Your task to perform on an android device: Go to network settings Image 0: 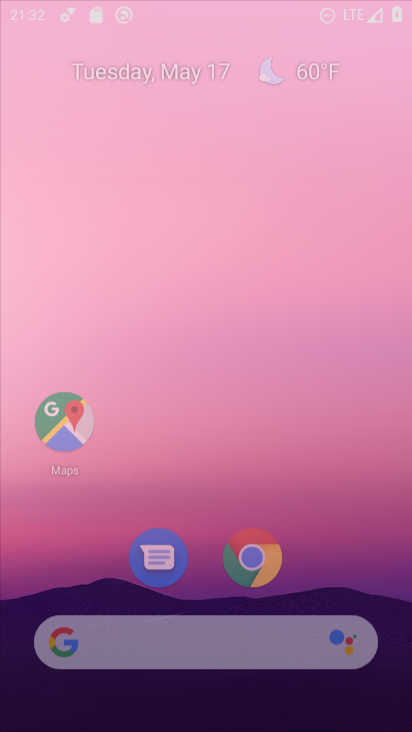
Step 0: click (178, 234)
Your task to perform on an android device: Go to network settings Image 1: 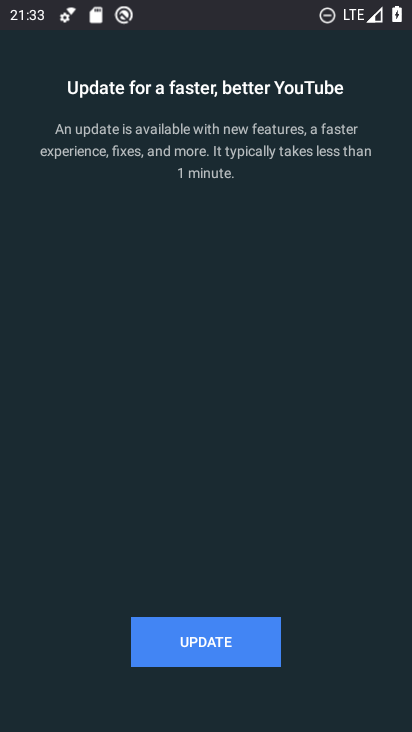
Step 1: press home button
Your task to perform on an android device: Go to network settings Image 2: 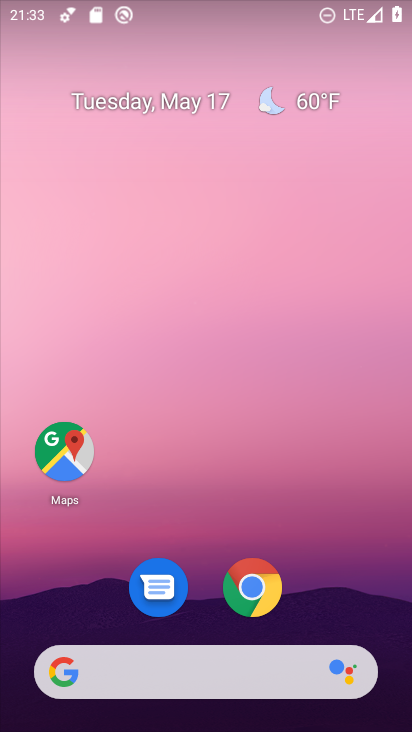
Step 2: drag from (196, 502) to (122, 211)
Your task to perform on an android device: Go to network settings Image 3: 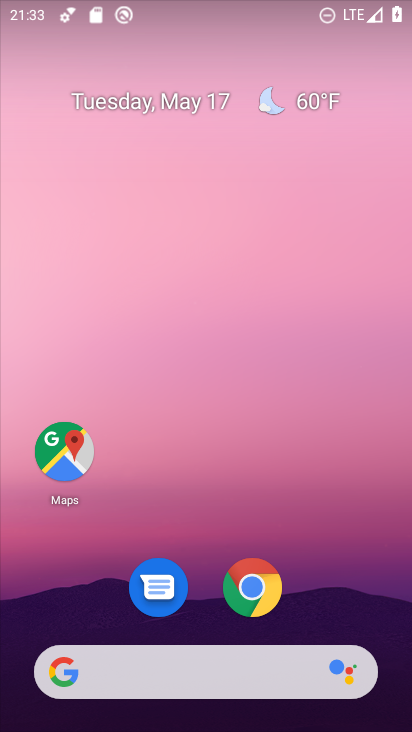
Step 3: drag from (255, 468) to (107, 78)
Your task to perform on an android device: Go to network settings Image 4: 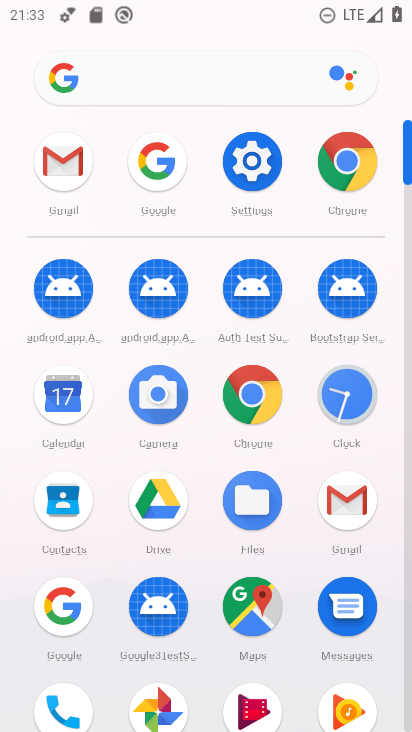
Step 4: click (230, 187)
Your task to perform on an android device: Go to network settings Image 5: 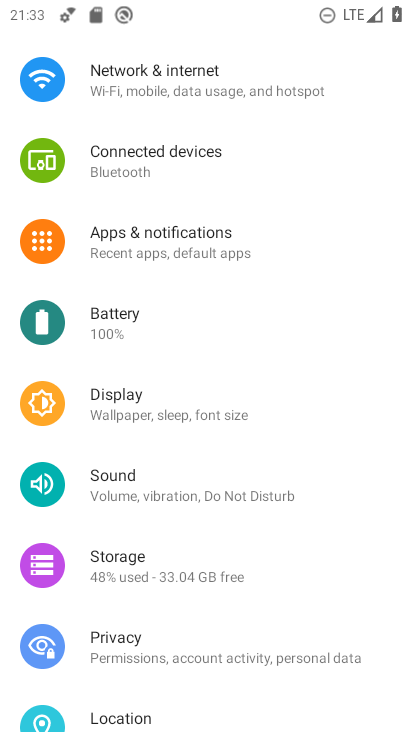
Step 5: click (118, 77)
Your task to perform on an android device: Go to network settings Image 6: 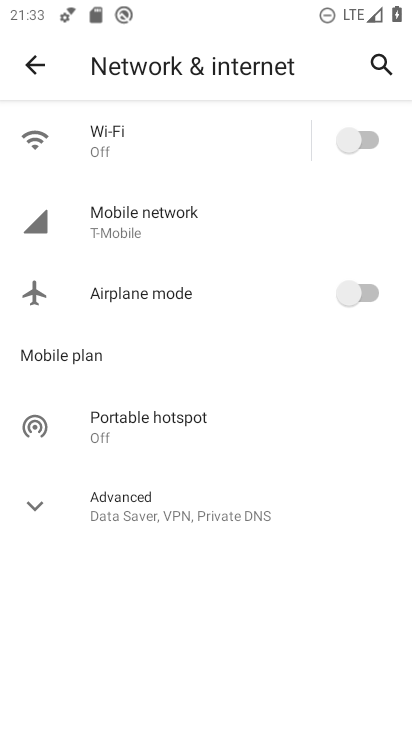
Step 6: task complete